Your task to perform on an android device: toggle pop-ups in chrome Image 0: 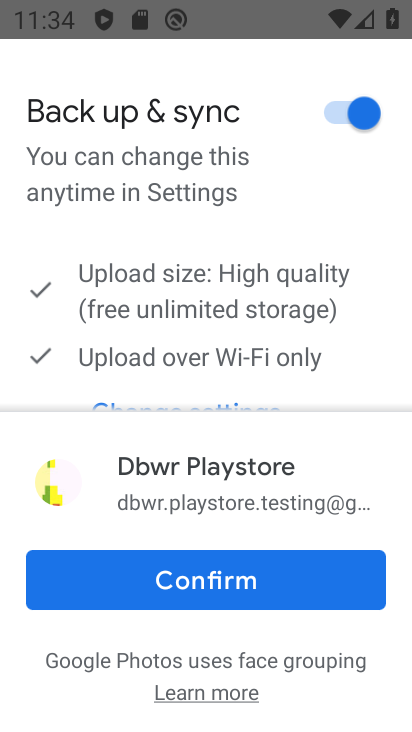
Step 0: press home button
Your task to perform on an android device: toggle pop-ups in chrome Image 1: 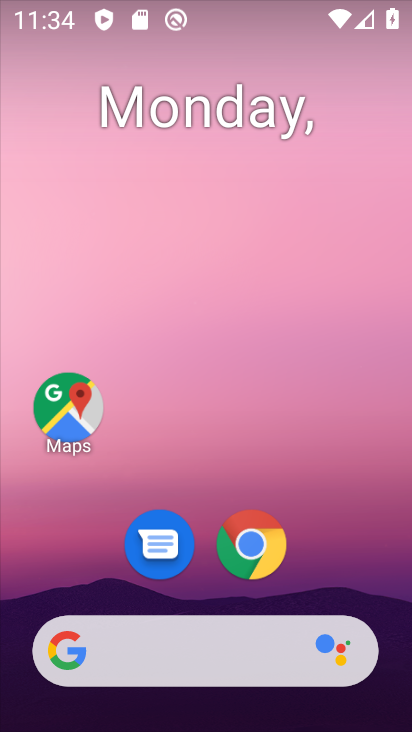
Step 1: drag from (304, 557) to (322, 236)
Your task to perform on an android device: toggle pop-ups in chrome Image 2: 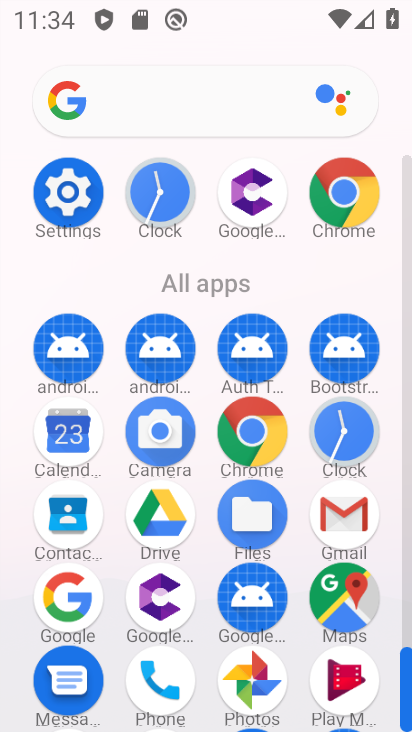
Step 2: click (323, 199)
Your task to perform on an android device: toggle pop-ups in chrome Image 3: 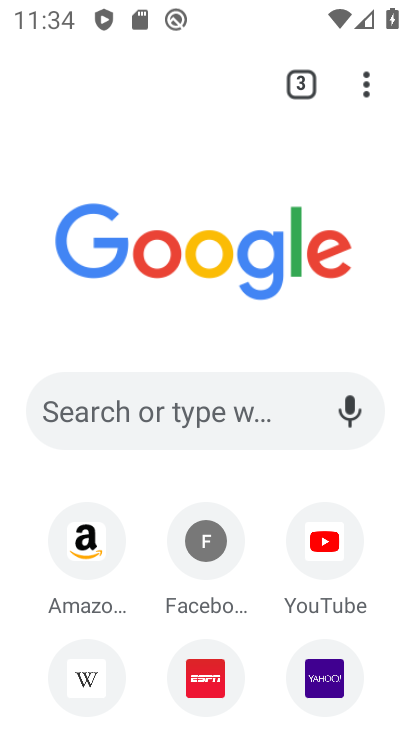
Step 3: click (347, 82)
Your task to perform on an android device: toggle pop-ups in chrome Image 4: 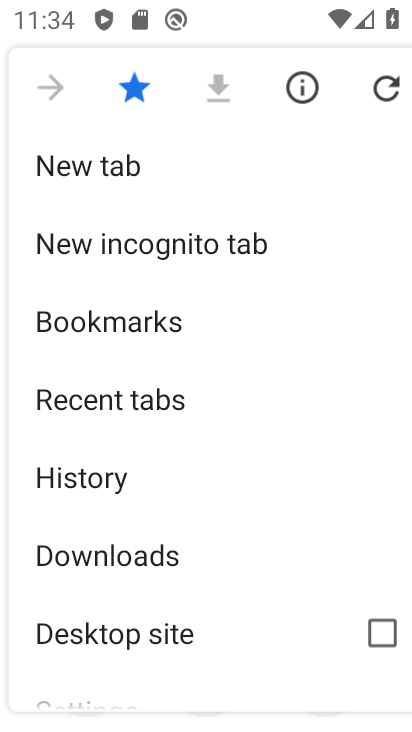
Step 4: drag from (223, 565) to (228, 339)
Your task to perform on an android device: toggle pop-ups in chrome Image 5: 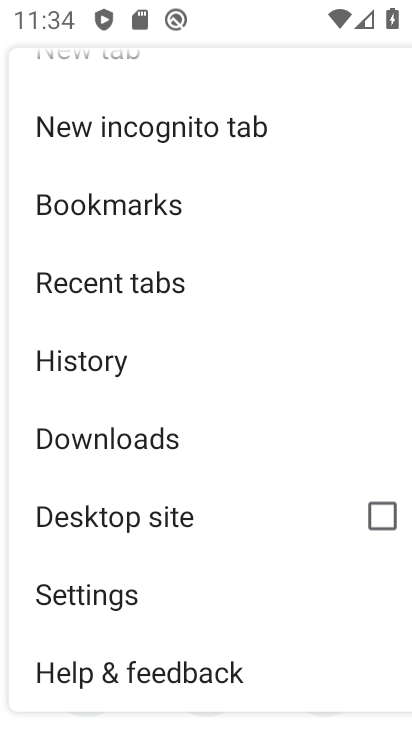
Step 5: click (132, 596)
Your task to perform on an android device: toggle pop-ups in chrome Image 6: 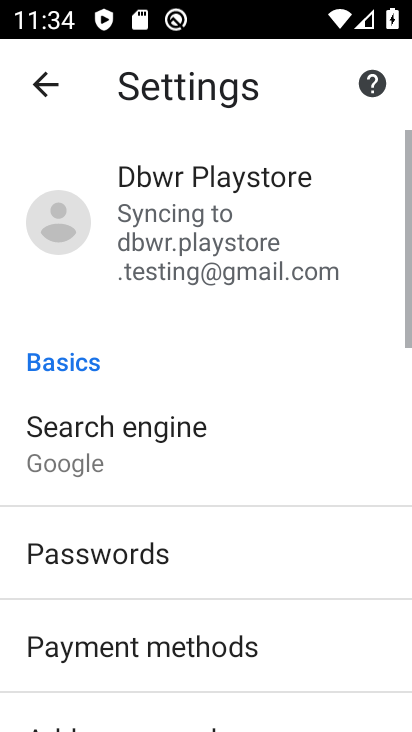
Step 6: drag from (209, 609) to (233, 316)
Your task to perform on an android device: toggle pop-ups in chrome Image 7: 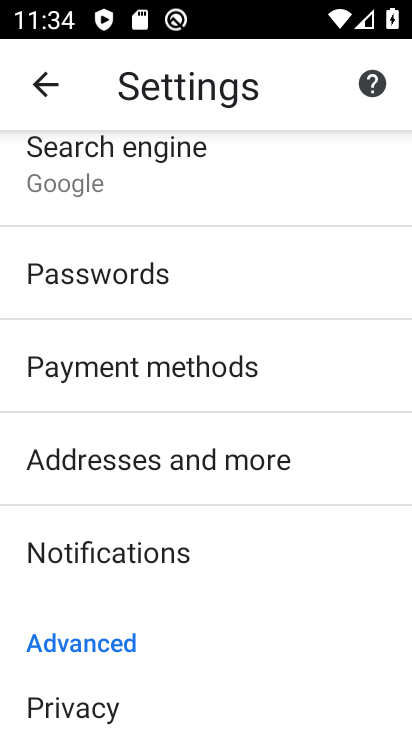
Step 7: drag from (150, 617) to (190, 377)
Your task to perform on an android device: toggle pop-ups in chrome Image 8: 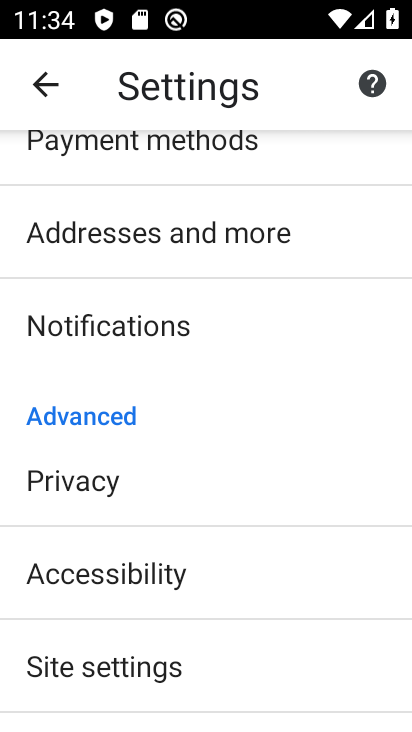
Step 8: click (181, 641)
Your task to perform on an android device: toggle pop-ups in chrome Image 9: 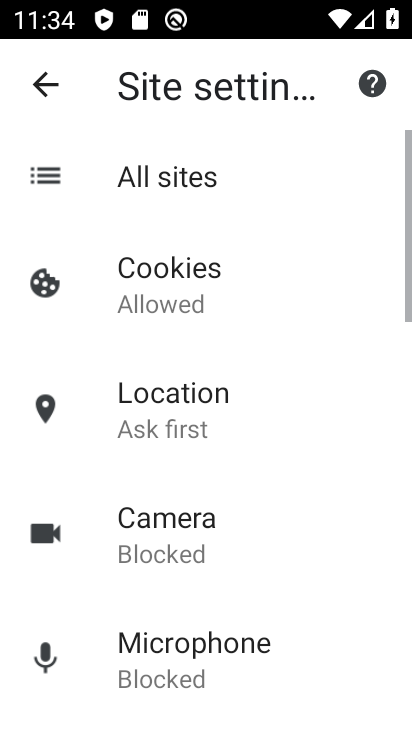
Step 9: drag from (247, 582) to (244, 311)
Your task to perform on an android device: toggle pop-ups in chrome Image 10: 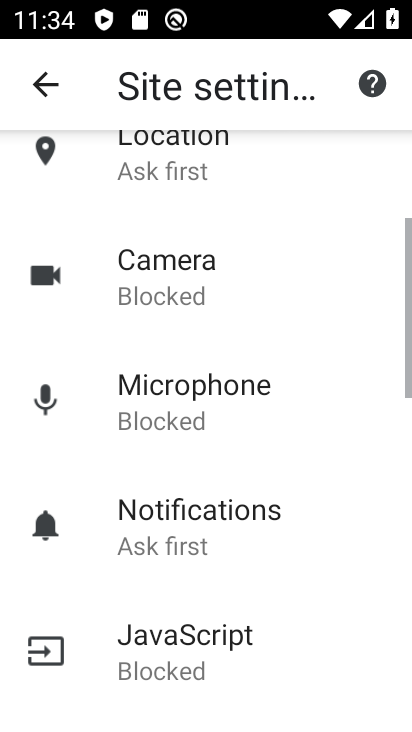
Step 10: drag from (211, 629) to (204, 353)
Your task to perform on an android device: toggle pop-ups in chrome Image 11: 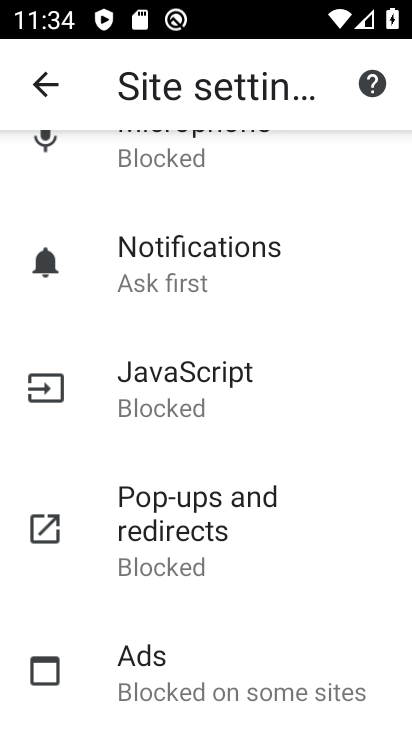
Step 11: click (206, 520)
Your task to perform on an android device: toggle pop-ups in chrome Image 12: 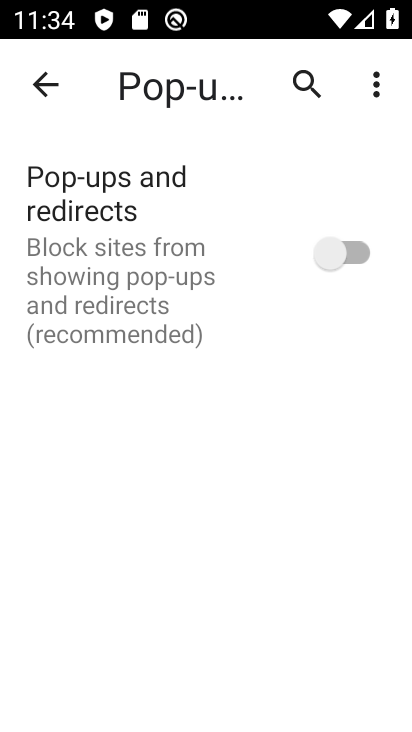
Step 12: click (333, 240)
Your task to perform on an android device: toggle pop-ups in chrome Image 13: 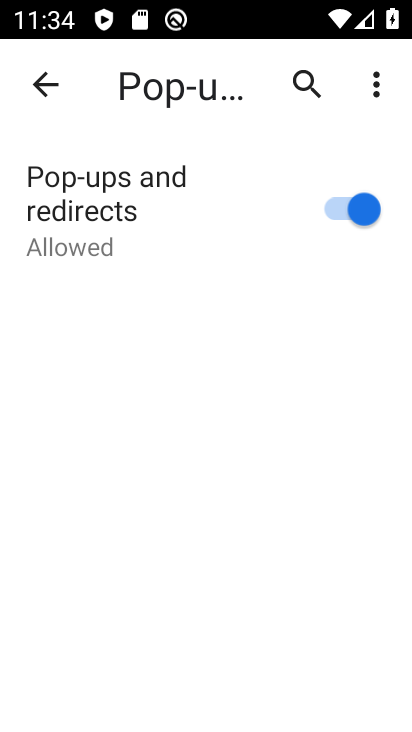
Step 13: task complete